Your task to perform on an android device: Open battery settings Image 0: 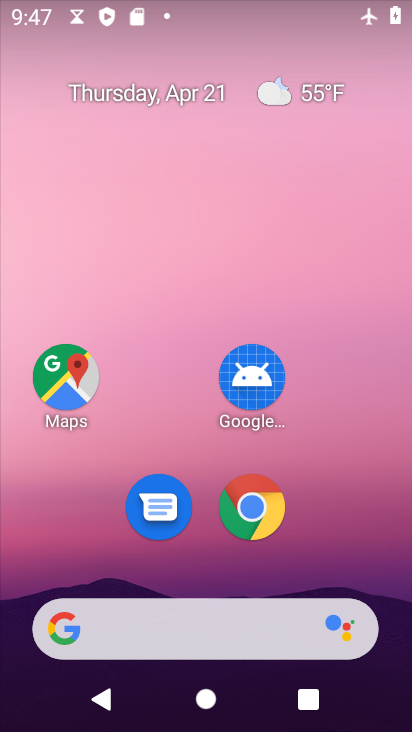
Step 0: drag from (294, 569) to (307, 232)
Your task to perform on an android device: Open battery settings Image 1: 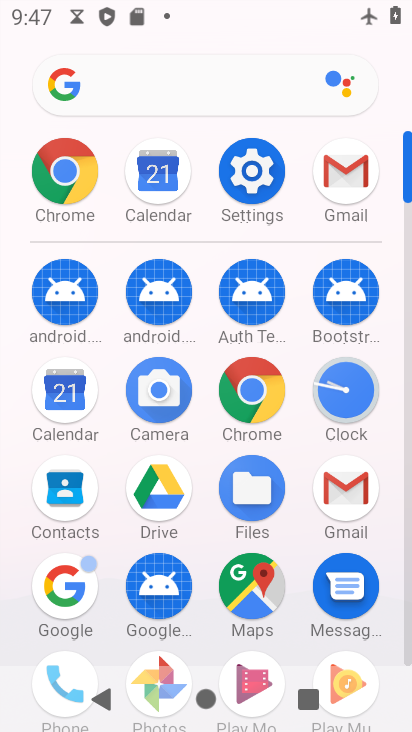
Step 1: click (252, 159)
Your task to perform on an android device: Open battery settings Image 2: 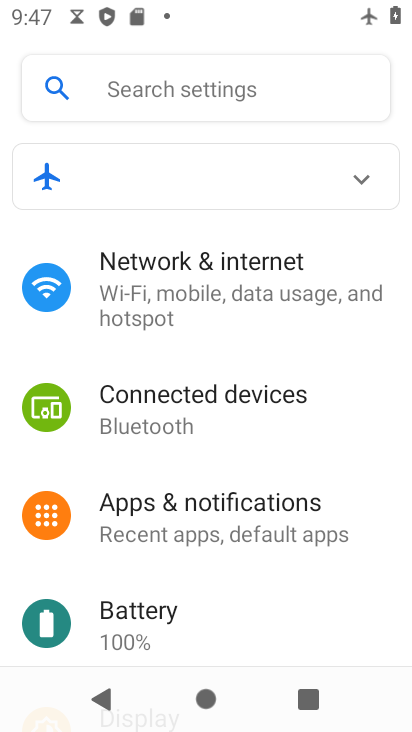
Step 2: click (141, 612)
Your task to perform on an android device: Open battery settings Image 3: 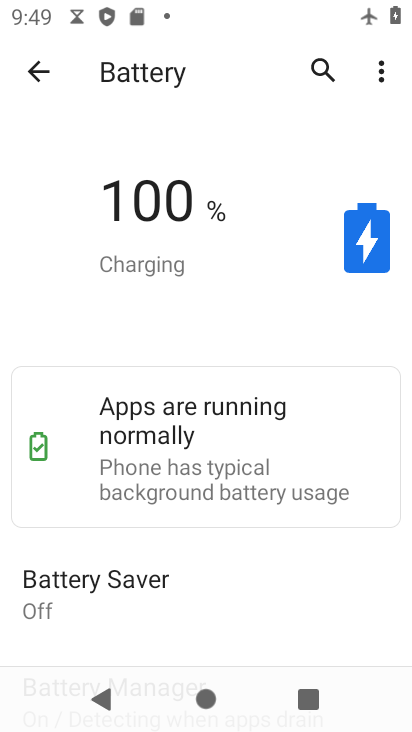
Step 3: task complete